Your task to perform on an android device: Go to Google Image 0: 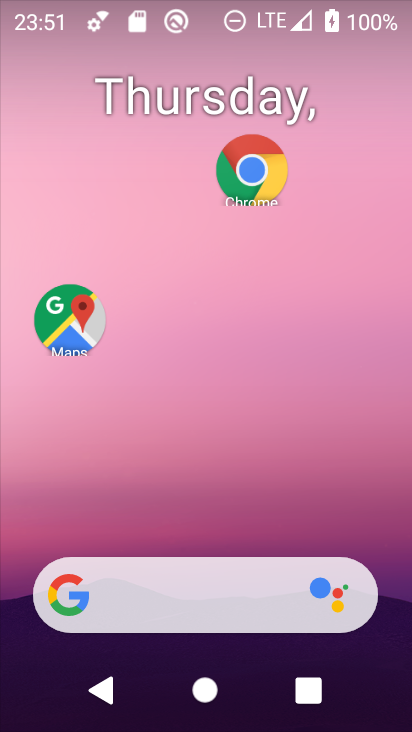
Step 0: drag from (181, 555) to (202, 238)
Your task to perform on an android device: Go to Google Image 1: 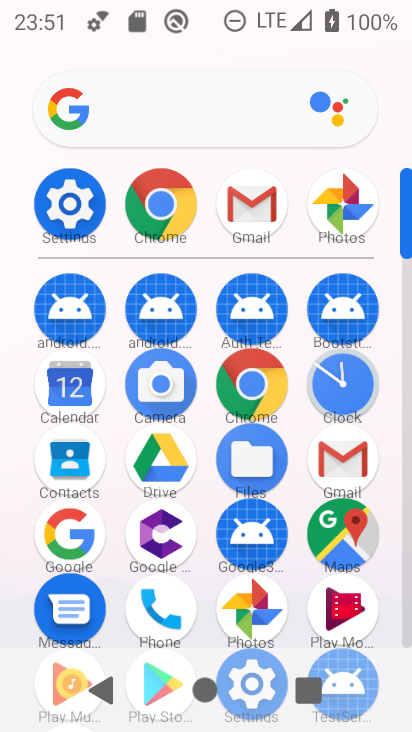
Step 1: click (66, 533)
Your task to perform on an android device: Go to Google Image 2: 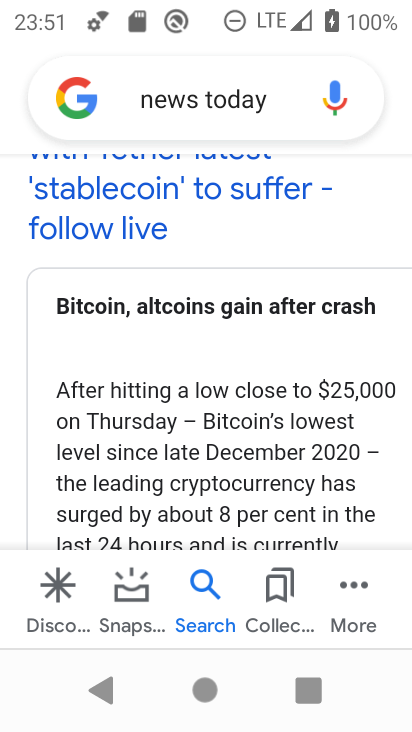
Step 2: task complete